Your task to perform on an android device: Find coffee shops on Maps Image 0: 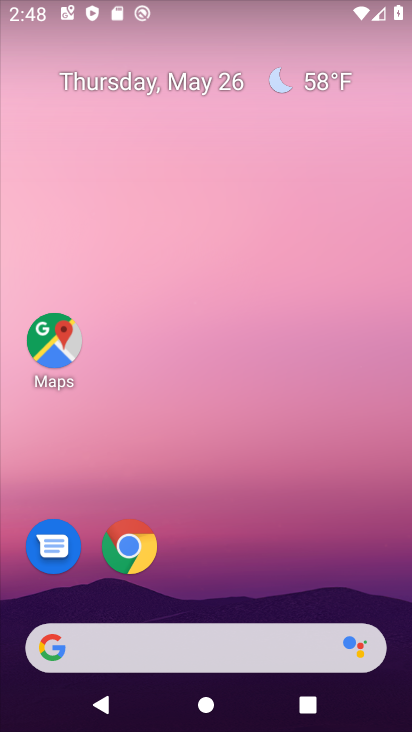
Step 0: press home button
Your task to perform on an android device: Find coffee shops on Maps Image 1: 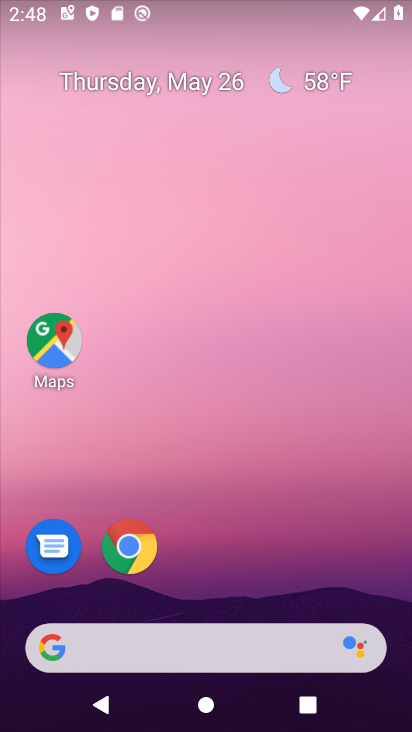
Step 1: click (242, 52)
Your task to perform on an android device: Find coffee shops on Maps Image 2: 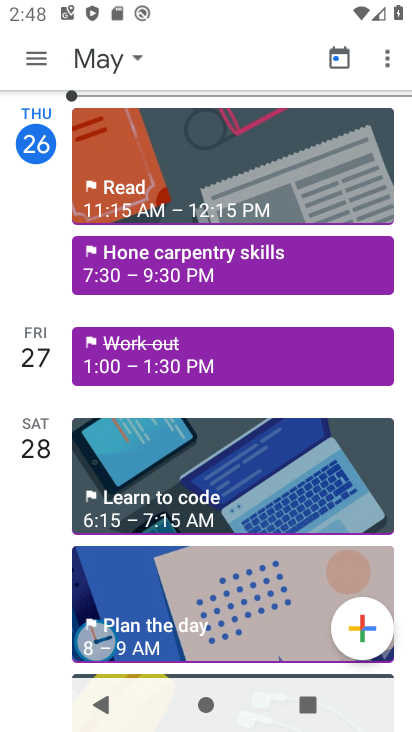
Step 2: press home button
Your task to perform on an android device: Find coffee shops on Maps Image 3: 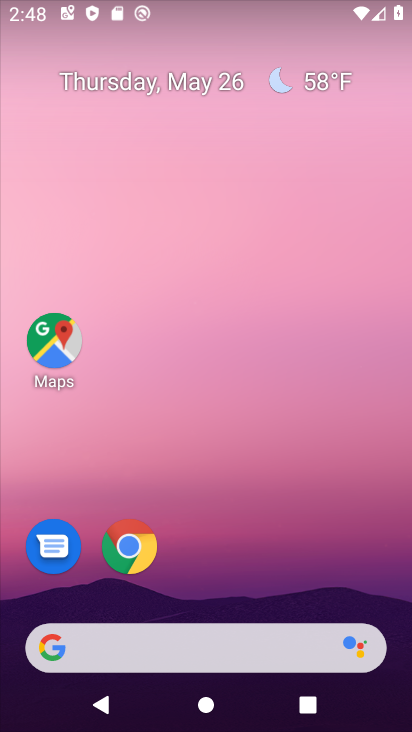
Step 3: drag from (253, 586) to (279, 56)
Your task to perform on an android device: Find coffee shops on Maps Image 4: 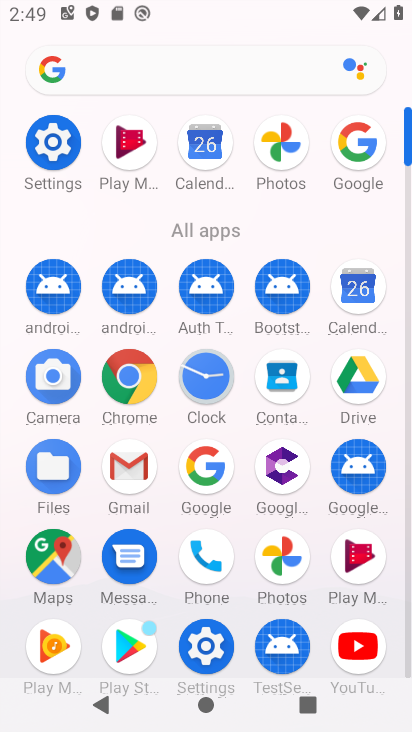
Step 4: click (51, 544)
Your task to perform on an android device: Find coffee shops on Maps Image 5: 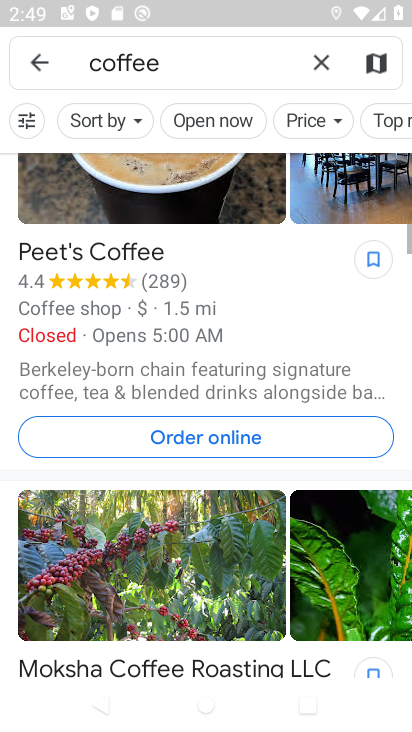
Step 5: task complete